Your task to perform on an android device: Open Google Image 0: 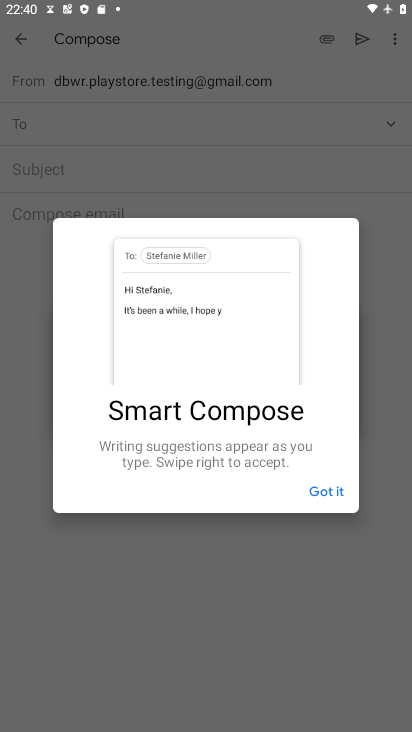
Step 0: press home button
Your task to perform on an android device: Open Google Image 1: 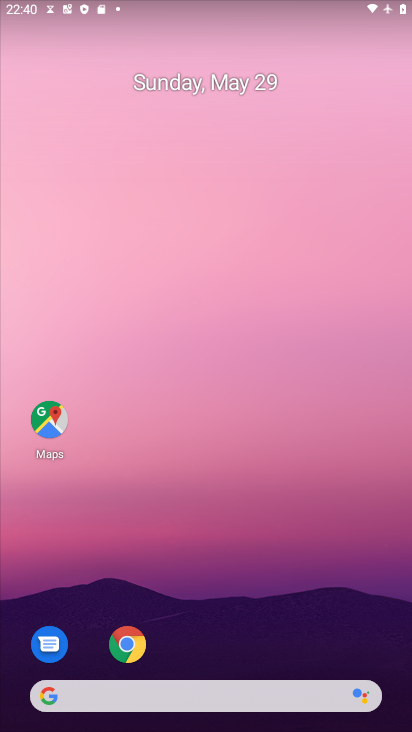
Step 1: drag from (208, 609) to (238, 278)
Your task to perform on an android device: Open Google Image 2: 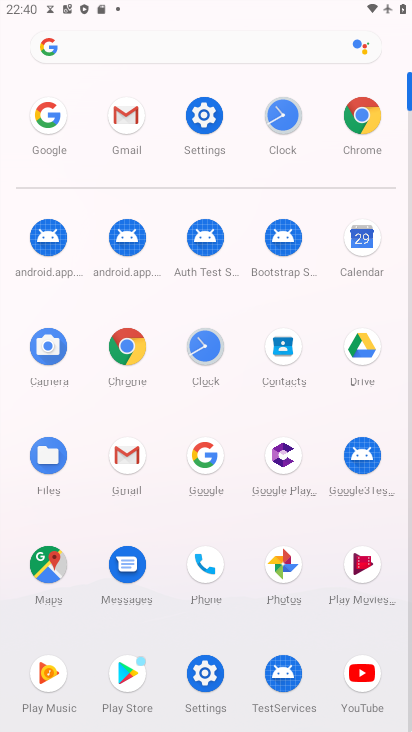
Step 2: click (206, 449)
Your task to perform on an android device: Open Google Image 3: 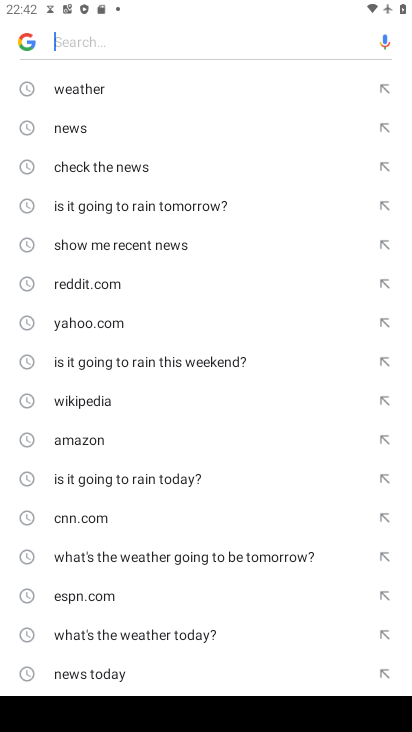
Step 3: task complete